Your task to perform on an android device: Go to accessibility settings Image 0: 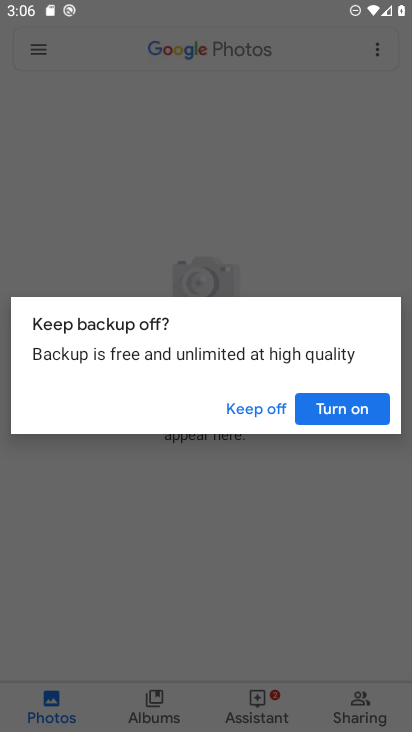
Step 0: press back button
Your task to perform on an android device: Go to accessibility settings Image 1: 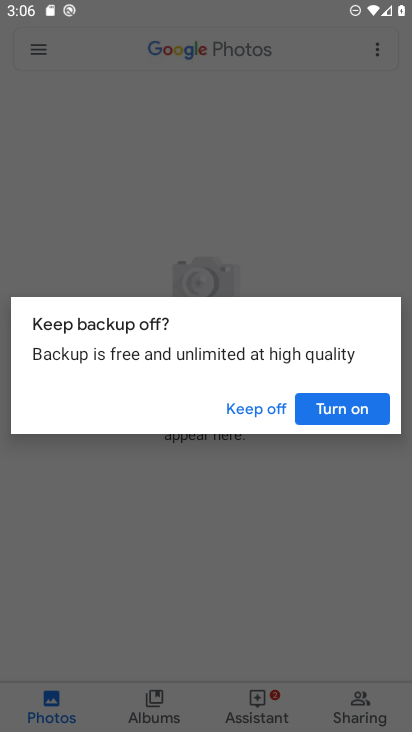
Step 1: press home button
Your task to perform on an android device: Go to accessibility settings Image 2: 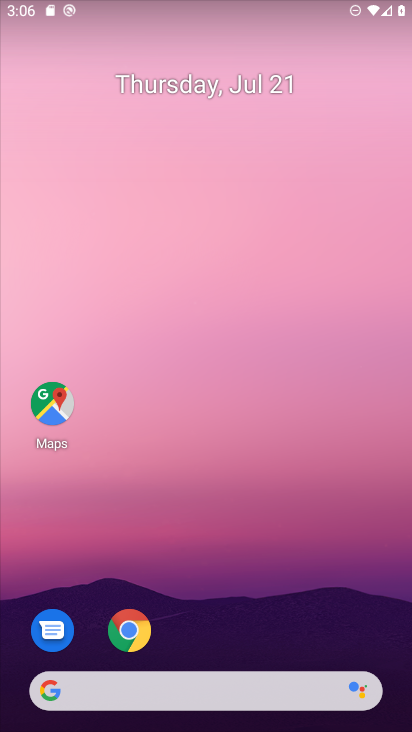
Step 2: drag from (205, 649) to (196, 16)
Your task to perform on an android device: Go to accessibility settings Image 3: 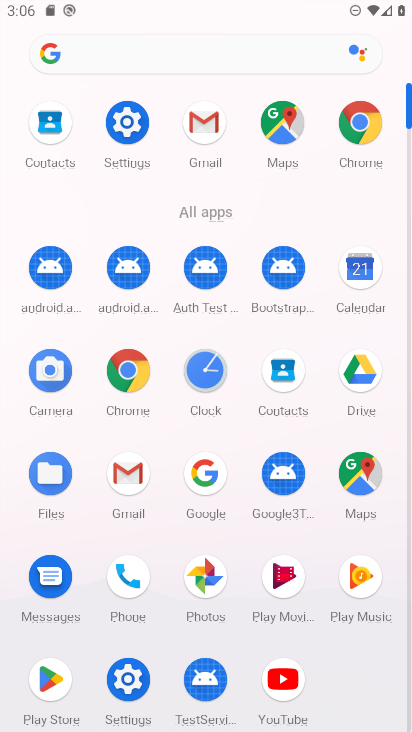
Step 3: click (126, 127)
Your task to perform on an android device: Go to accessibility settings Image 4: 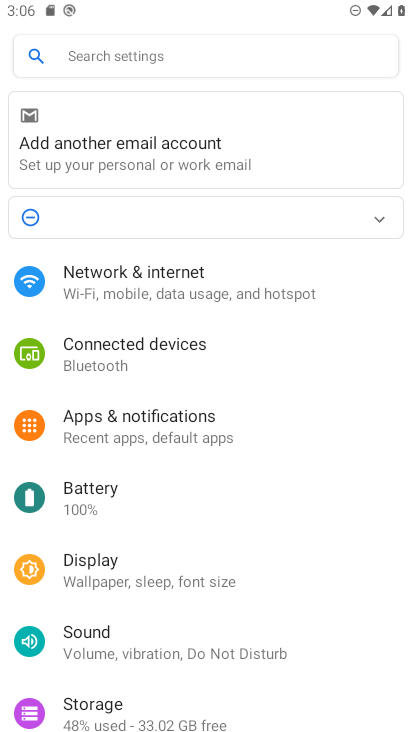
Step 4: drag from (154, 677) to (208, 288)
Your task to perform on an android device: Go to accessibility settings Image 5: 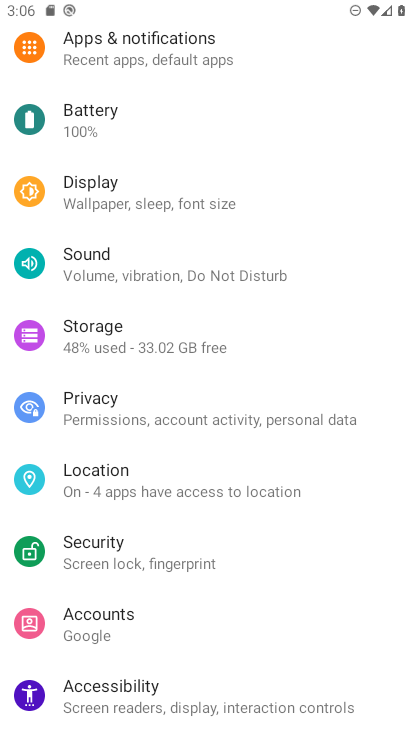
Step 5: click (105, 693)
Your task to perform on an android device: Go to accessibility settings Image 6: 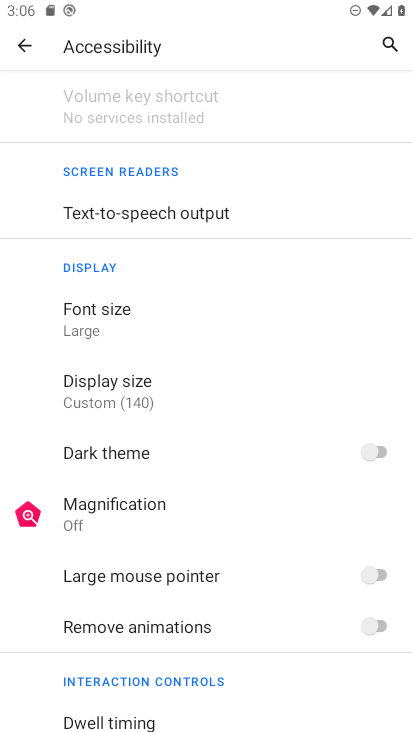
Step 6: task complete